Your task to perform on an android device: turn on the 12-hour format for clock Image 0: 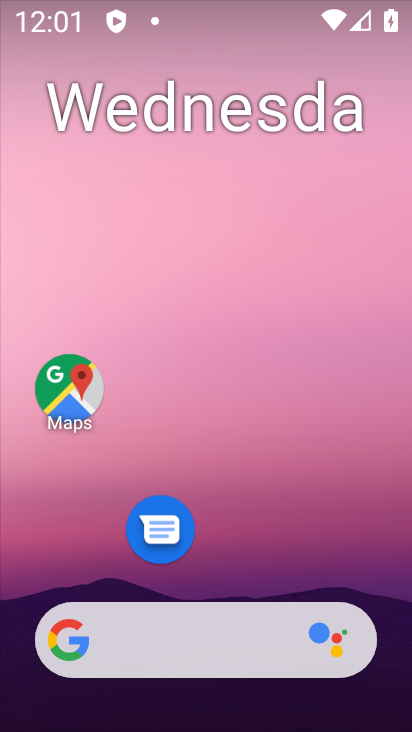
Step 0: drag from (204, 587) to (195, 15)
Your task to perform on an android device: turn on the 12-hour format for clock Image 1: 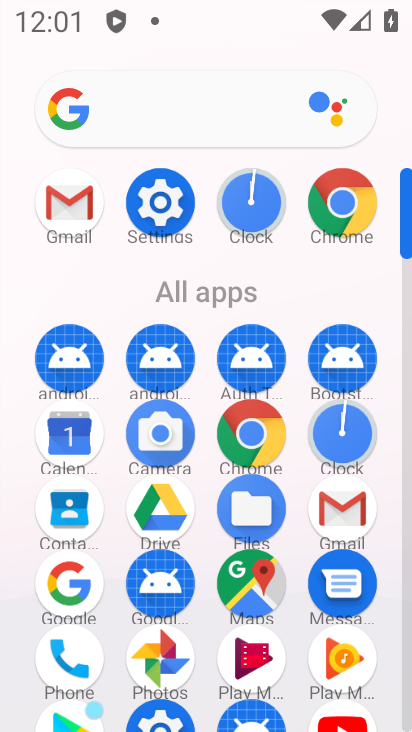
Step 1: click (346, 448)
Your task to perform on an android device: turn on the 12-hour format for clock Image 2: 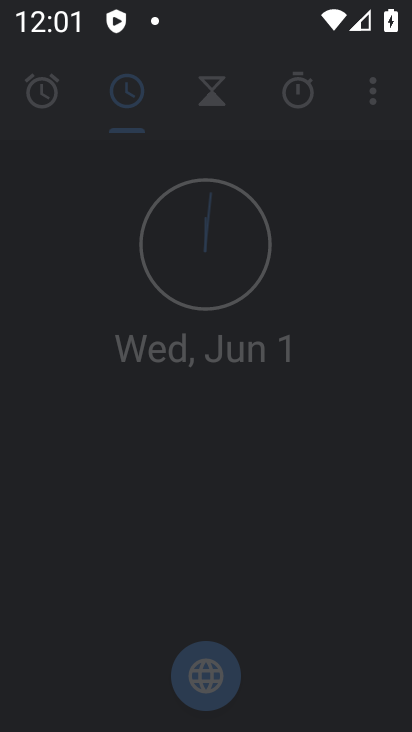
Step 2: click (349, 432)
Your task to perform on an android device: turn on the 12-hour format for clock Image 3: 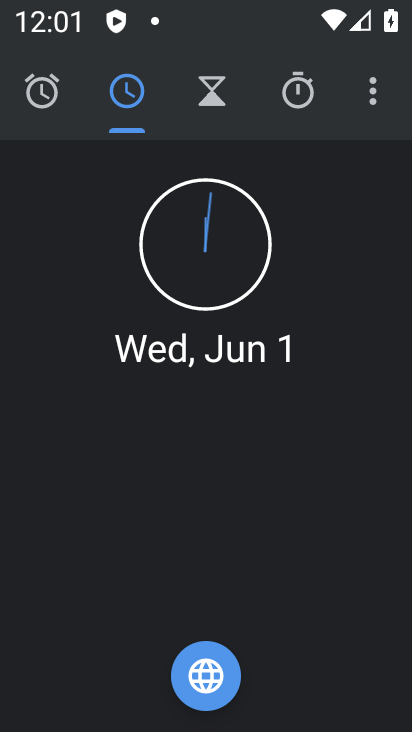
Step 3: click (368, 94)
Your task to perform on an android device: turn on the 12-hour format for clock Image 4: 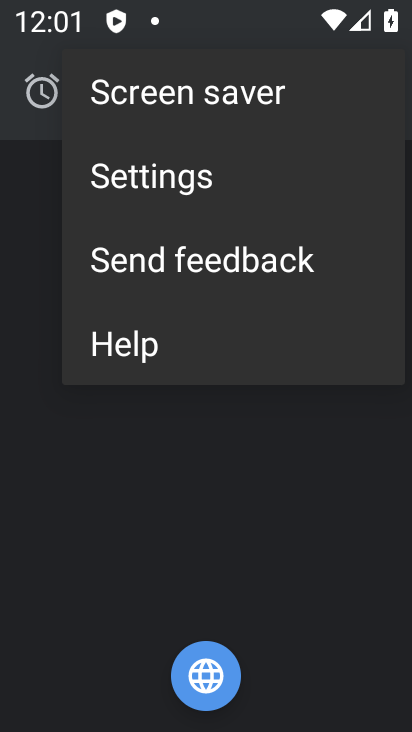
Step 4: click (196, 176)
Your task to perform on an android device: turn on the 12-hour format for clock Image 5: 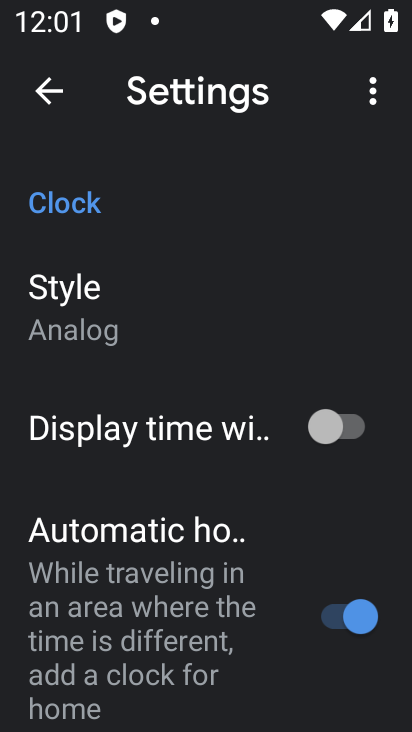
Step 5: drag from (119, 616) to (108, 151)
Your task to perform on an android device: turn on the 12-hour format for clock Image 6: 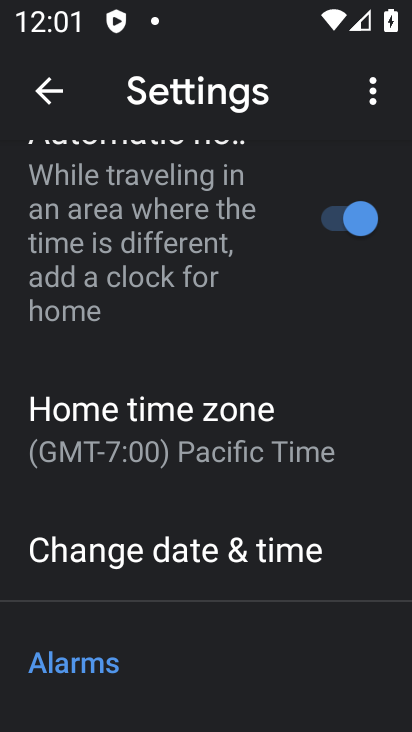
Step 6: click (153, 560)
Your task to perform on an android device: turn on the 12-hour format for clock Image 7: 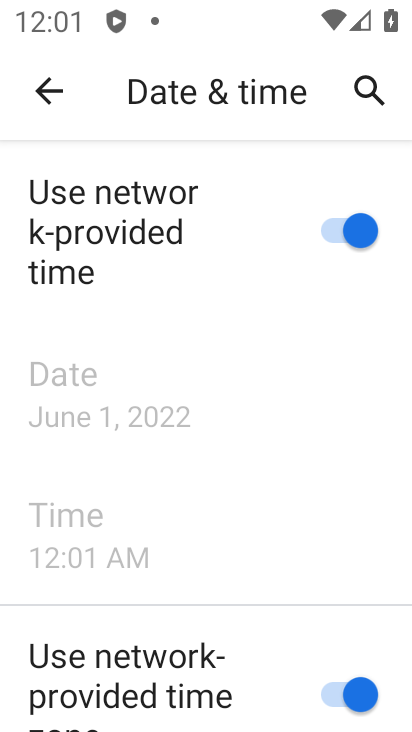
Step 7: task complete